Your task to perform on an android device: allow cookies in the chrome app Image 0: 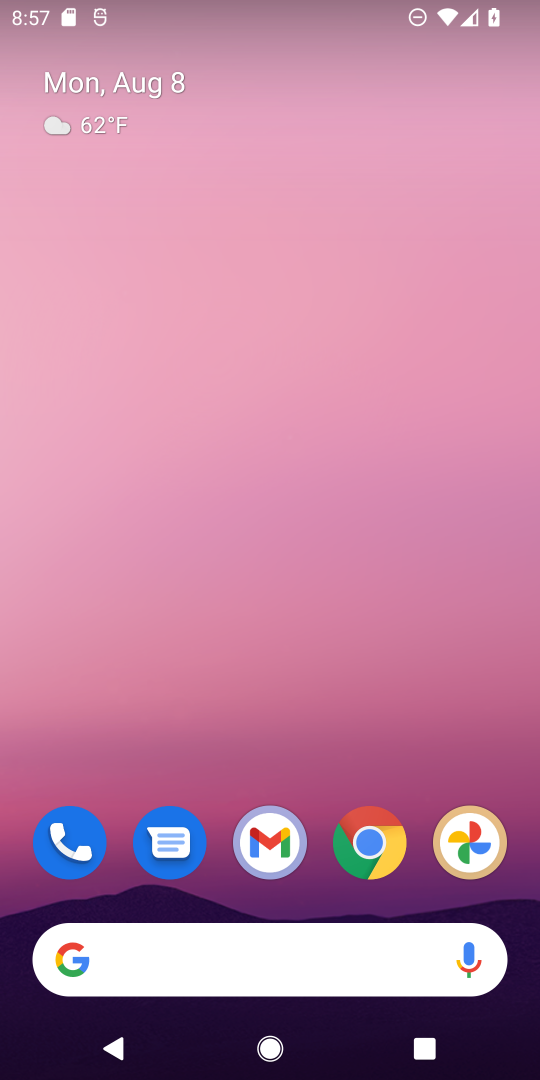
Step 0: click (372, 841)
Your task to perform on an android device: allow cookies in the chrome app Image 1: 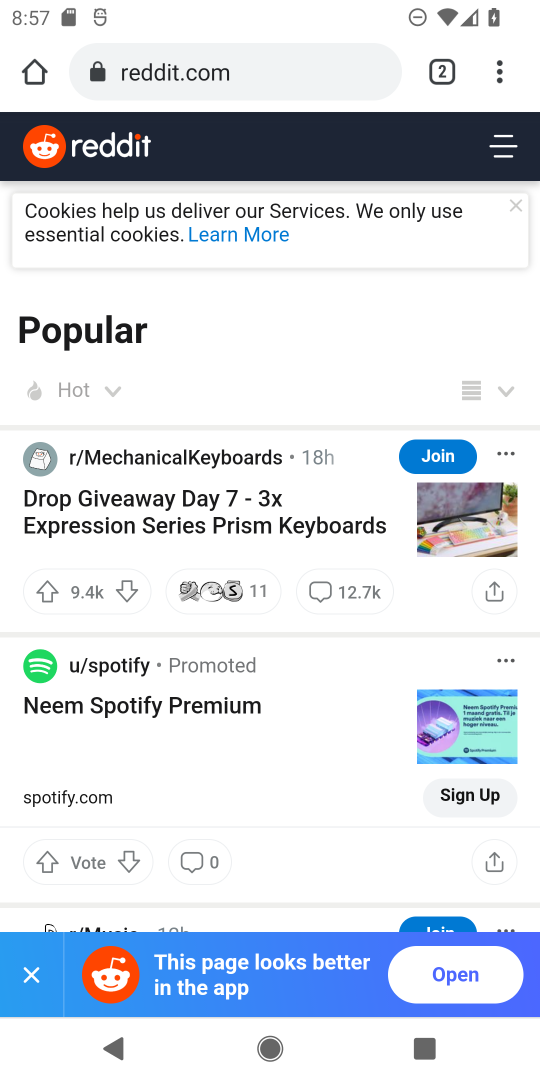
Step 1: click (499, 71)
Your task to perform on an android device: allow cookies in the chrome app Image 2: 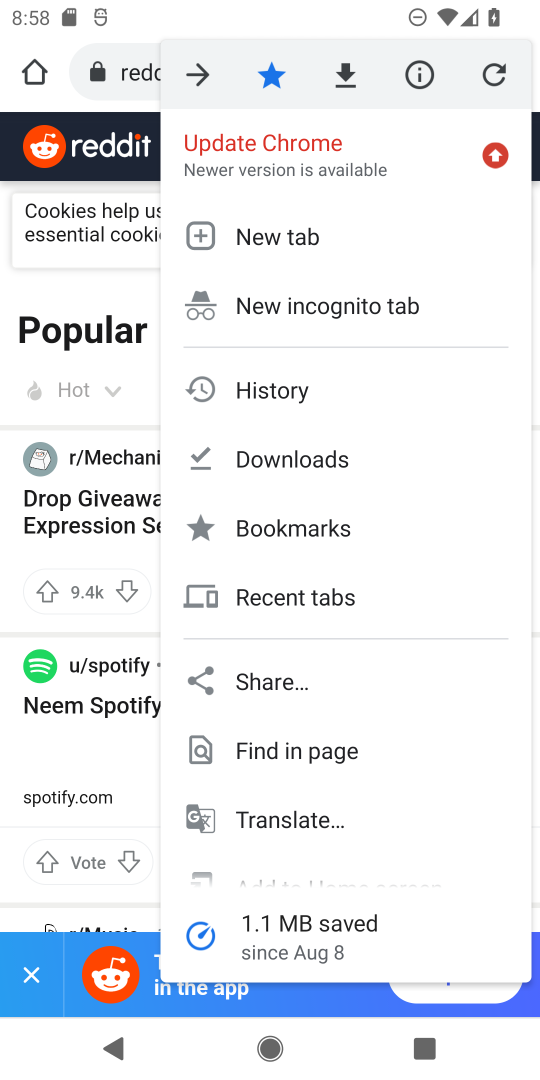
Step 2: drag from (324, 846) to (374, 111)
Your task to perform on an android device: allow cookies in the chrome app Image 3: 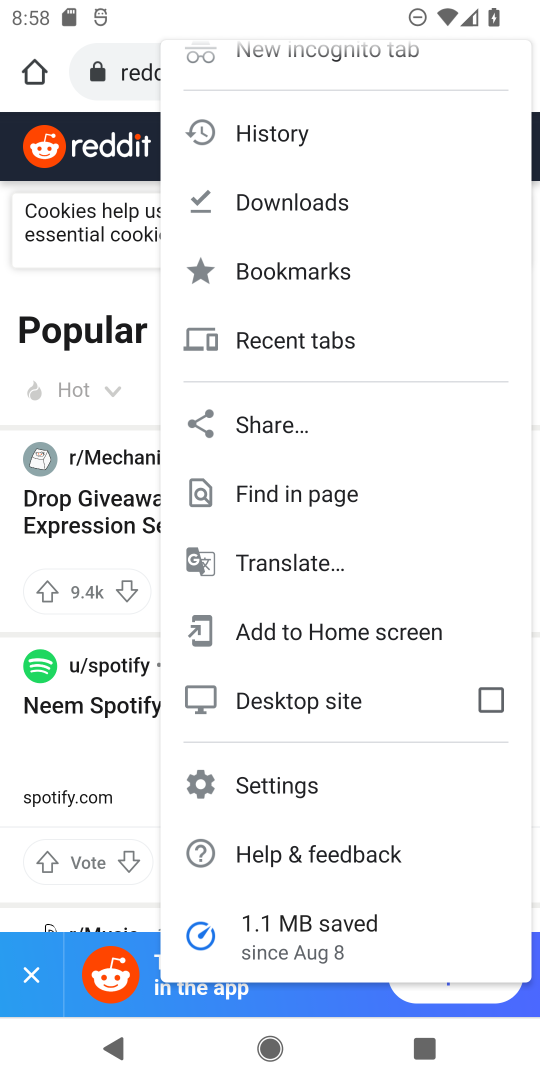
Step 3: click (306, 770)
Your task to perform on an android device: allow cookies in the chrome app Image 4: 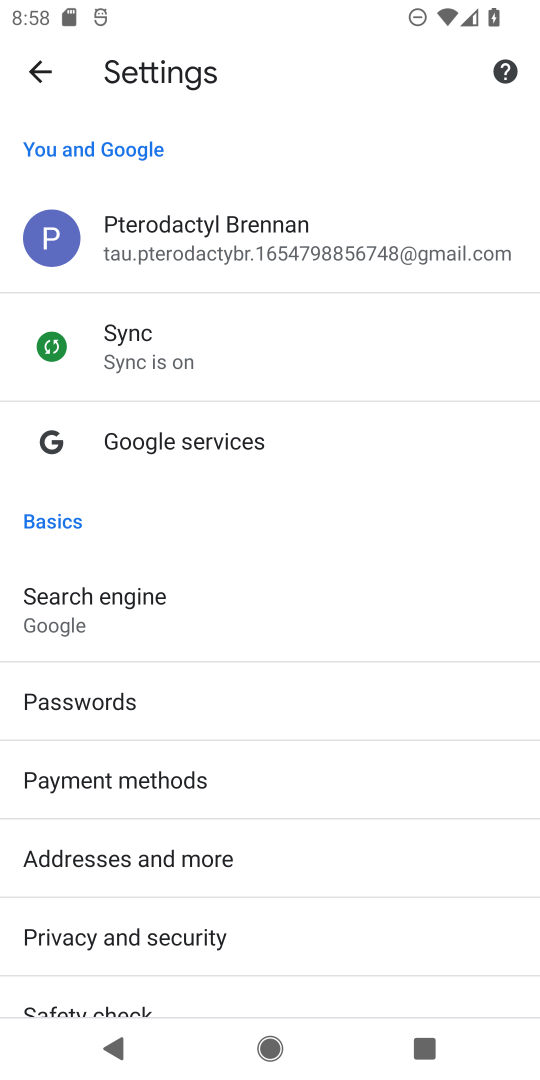
Step 4: drag from (282, 889) to (261, 72)
Your task to perform on an android device: allow cookies in the chrome app Image 5: 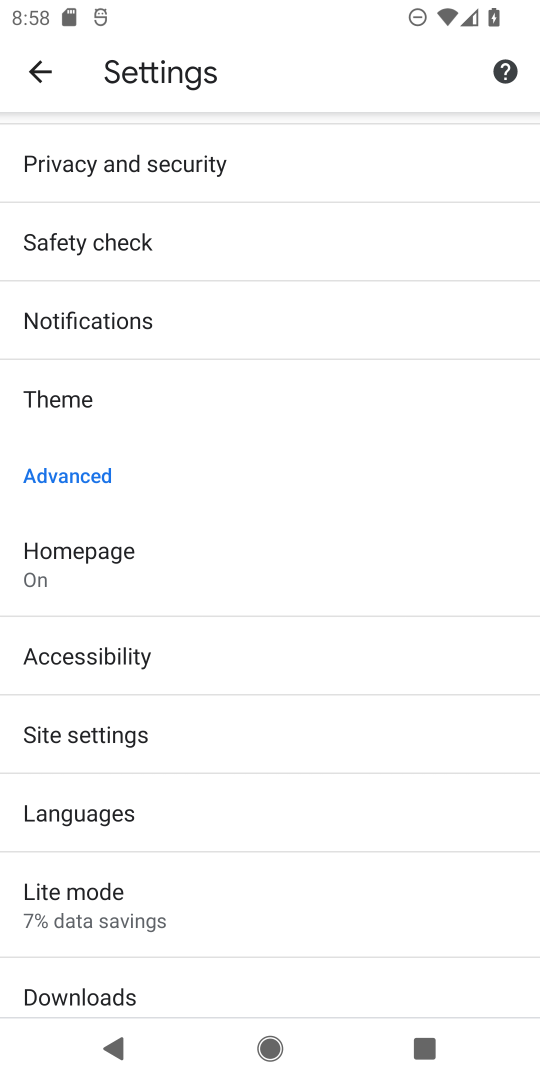
Step 5: click (130, 727)
Your task to perform on an android device: allow cookies in the chrome app Image 6: 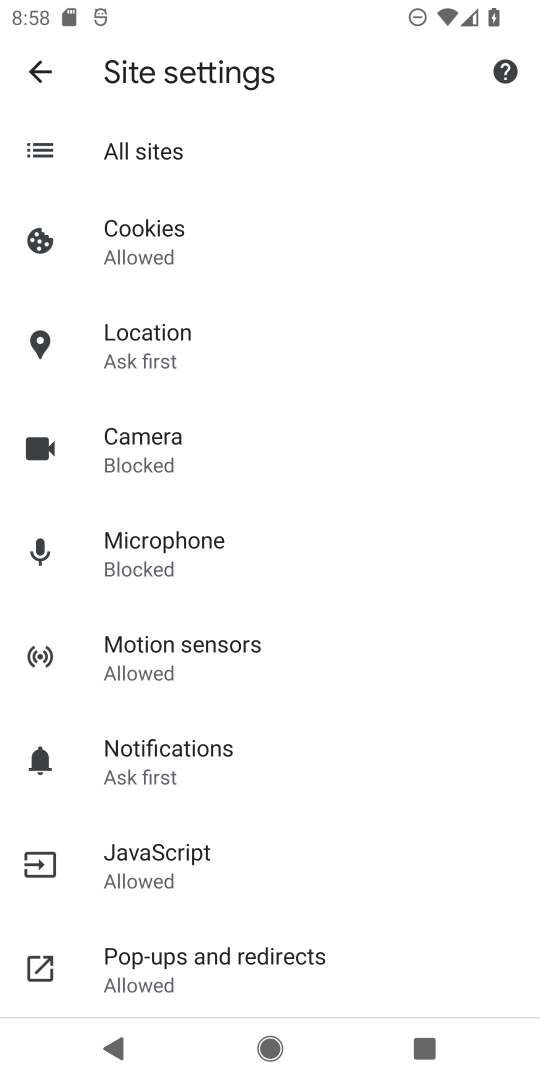
Step 6: click (187, 240)
Your task to perform on an android device: allow cookies in the chrome app Image 7: 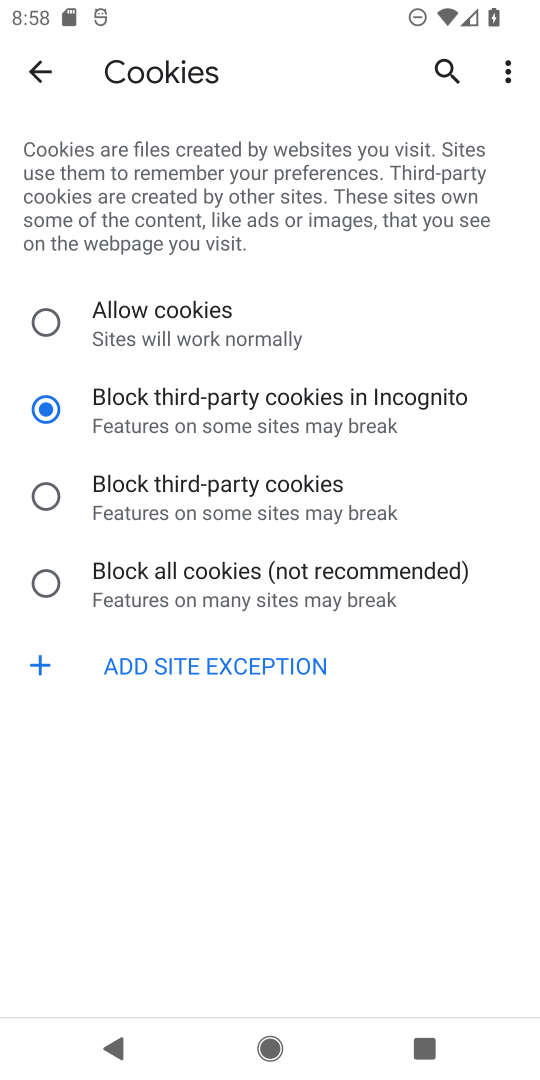
Step 7: click (44, 316)
Your task to perform on an android device: allow cookies in the chrome app Image 8: 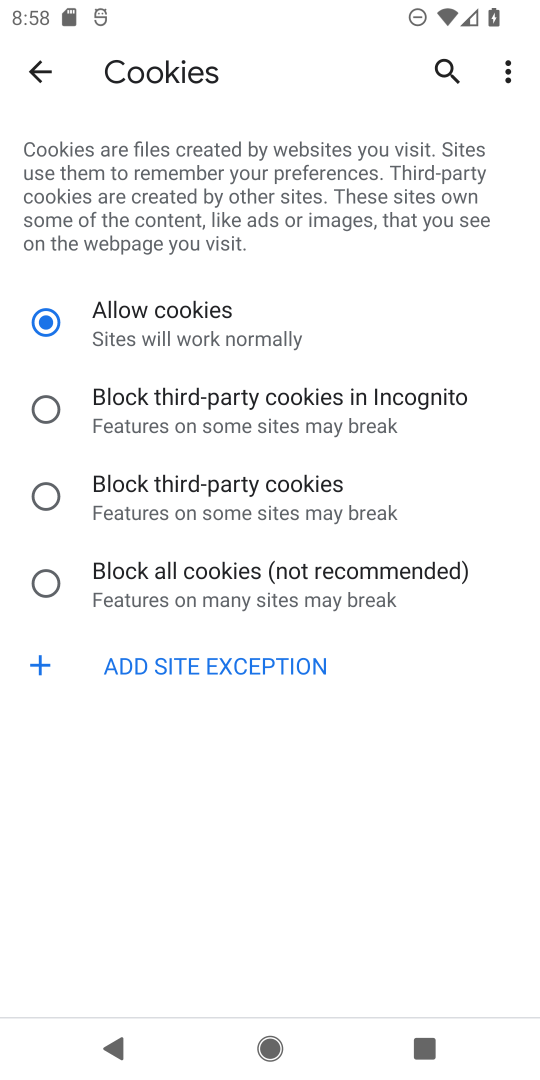
Step 8: task complete